Your task to perform on an android device: read, delete, or share a saved page in the chrome app Image 0: 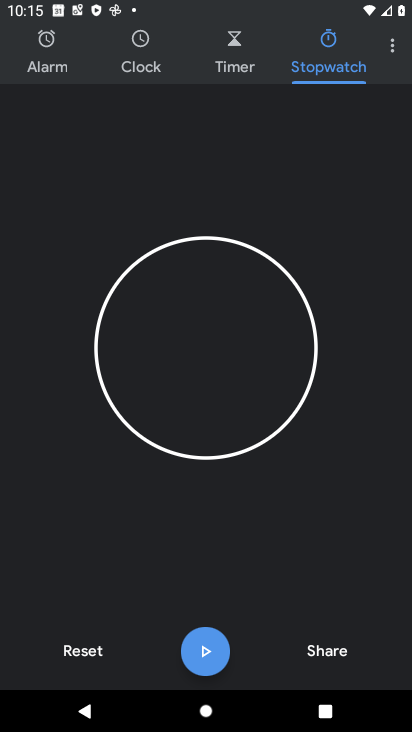
Step 0: press home button
Your task to perform on an android device: read, delete, or share a saved page in the chrome app Image 1: 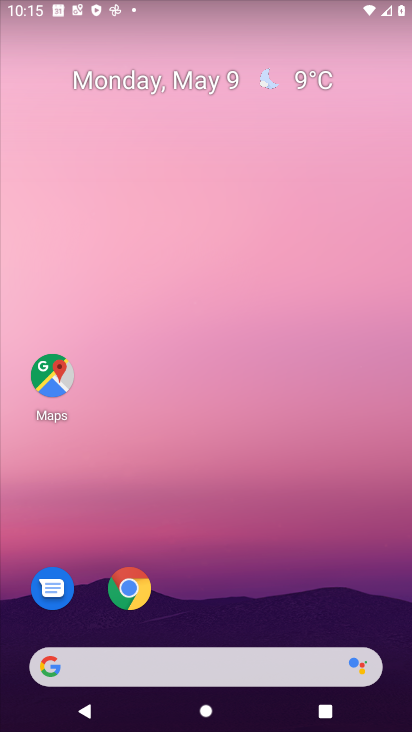
Step 1: drag from (191, 636) to (320, 61)
Your task to perform on an android device: read, delete, or share a saved page in the chrome app Image 2: 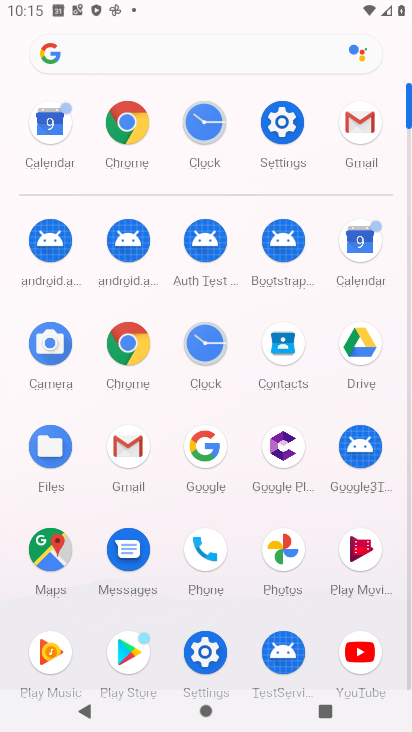
Step 2: click (129, 136)
Your task to perform on an android device: read, delete, or share a saved page in the chrome app Image 3: 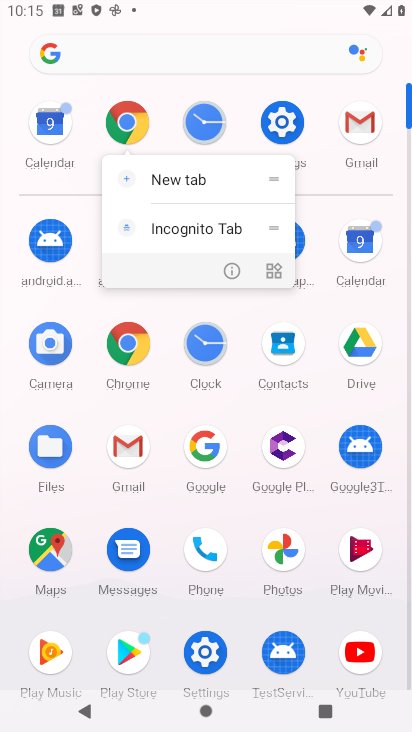
Step 3: click (133, 127)
Your task to perform on an android device: read, delete, or share a saved page in the chrome app Image 4: 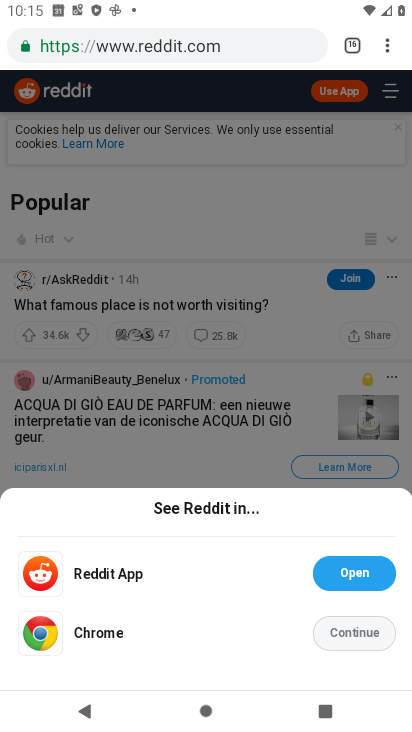
Step 4: drag from (388, 46) to (263, 298)
Your task to perform on an android device: read, delete, or share a saved page in the chrome app Image 5: 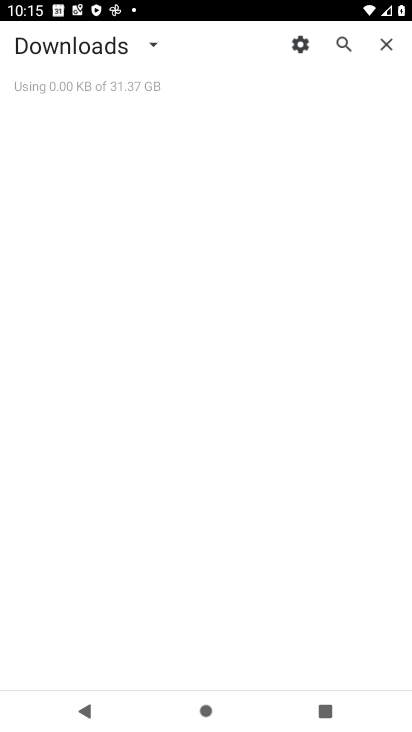
Step 5: click (141, 39)
Your task to perform on an android device: read, delete, or share a saved page in the chrome app Image 6: 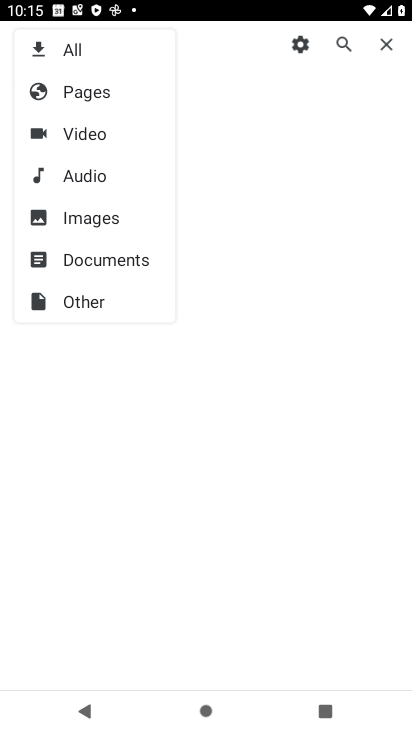
Step 6: click (98, 91)
Your task to perform on an android device: read, delete, or share a saved page in the chrome app Image 7: 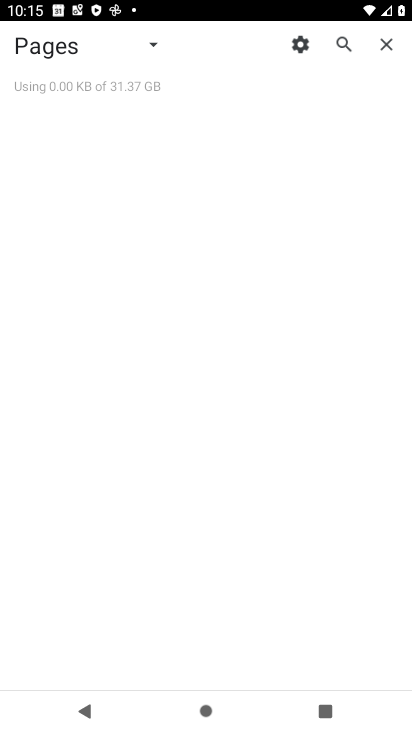
Step 7: task complete